Your task to perform on an android device: Is it going to rain tomorrow? Image 0: 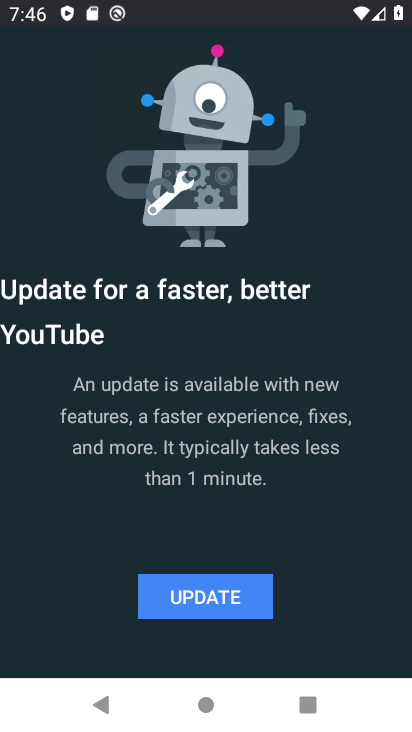
Step 0: press home button
Your task to perform on an android device: Is it going to rain tomorrow? Image 1: 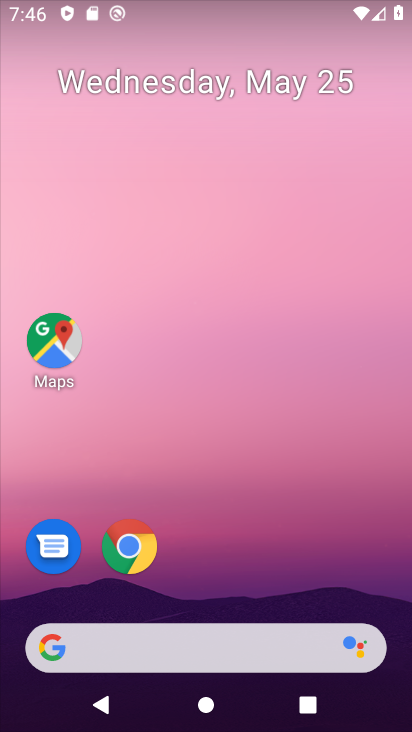
Step 1: click (189, 588)
Your task to perform on an android device: Is it going to rain tomorrow? Image 2: 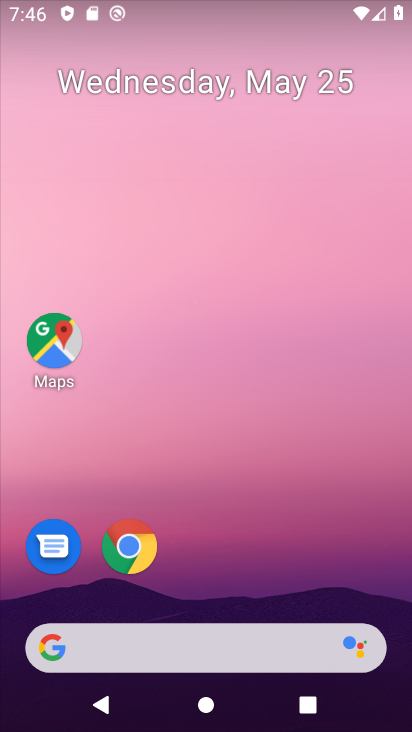
Step 2: click (166, 641)
Your task to perform on an android device: Is it going to rain tomorrow? Image 3: 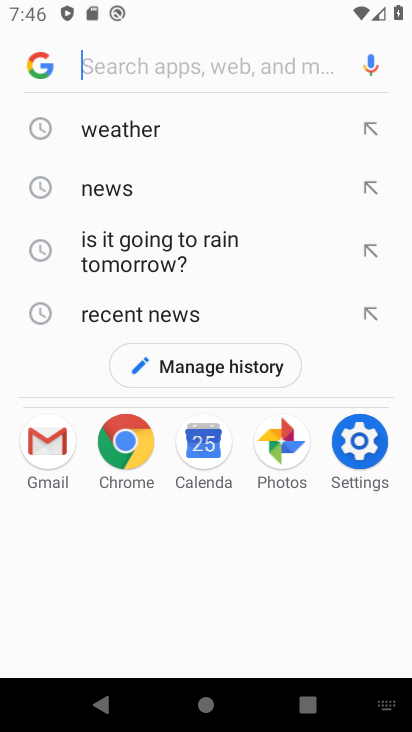
Step 3: click (130, 122)
Your task to perform on an android device: Is it going to rain tomorrow? Image 4: 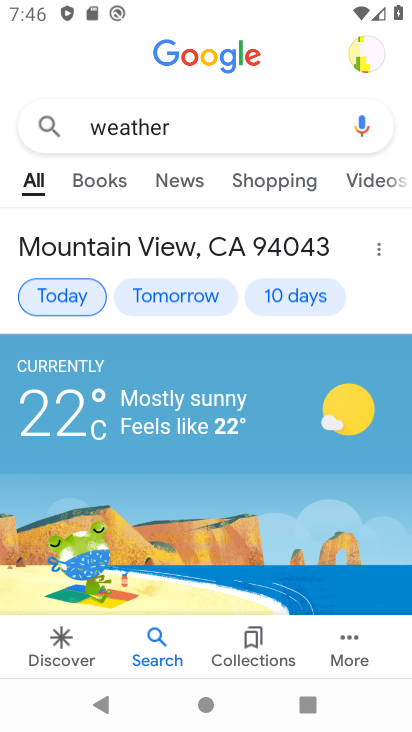
Step 4: click (151, 298)
Your task to perform on an android device: Is it going to rain tomorrow? Image 5: 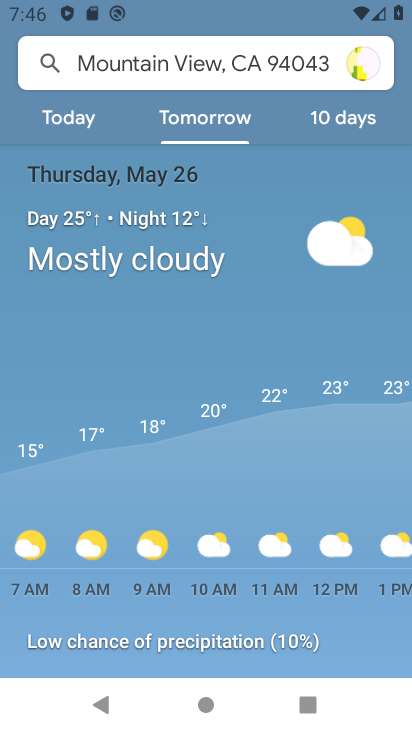
Step 5: drag from (270, 599) to (199, 300)
Your task to perform on an android device: Is it going to rain tomorrow? Image 6: 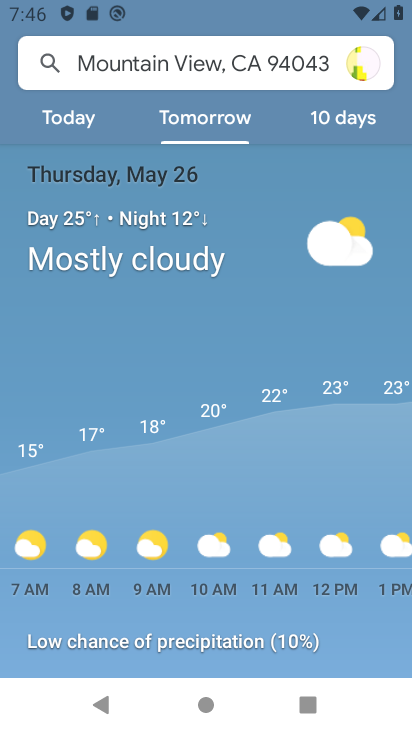
Step 6: drag from (244, 476) to (271, 115)
Your task to perform on an android device: Is it going to rain tomorrow? Image 7: 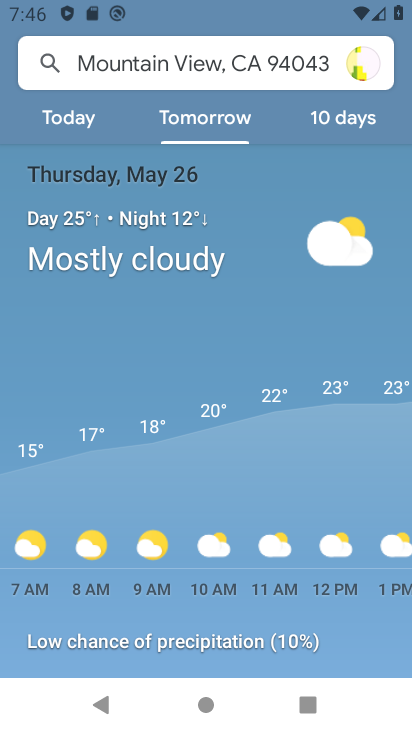
Step 7: drag from (288, 482) to (7, 409)
Your task to perform on an android device: Is it going to rain tomorrow? Image 8: 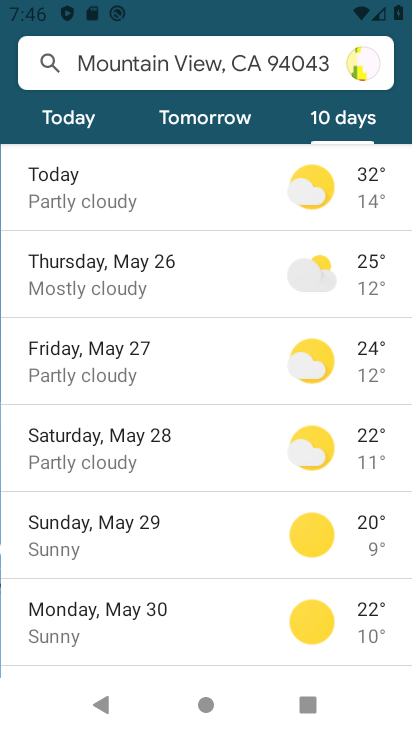
Step 8: click (110, 436)
Your task to perform on an android device: Is it going to rain tomorrow? Image 9: 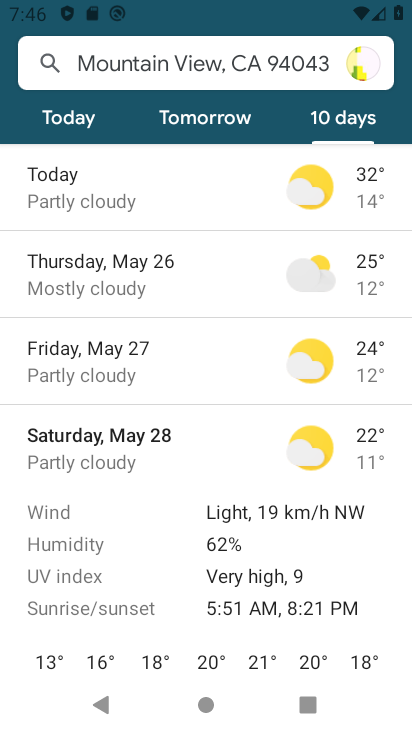
Step 9: click (228, 116)
Your task to perform on an android device: Is it going to rain tomorrow? Image 10: 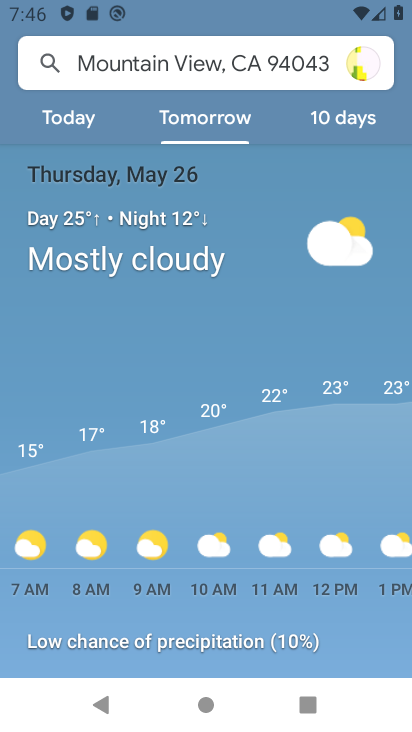
Step 10: task complete